Your task to perform on an android device: Do I have any events today? Image 0: 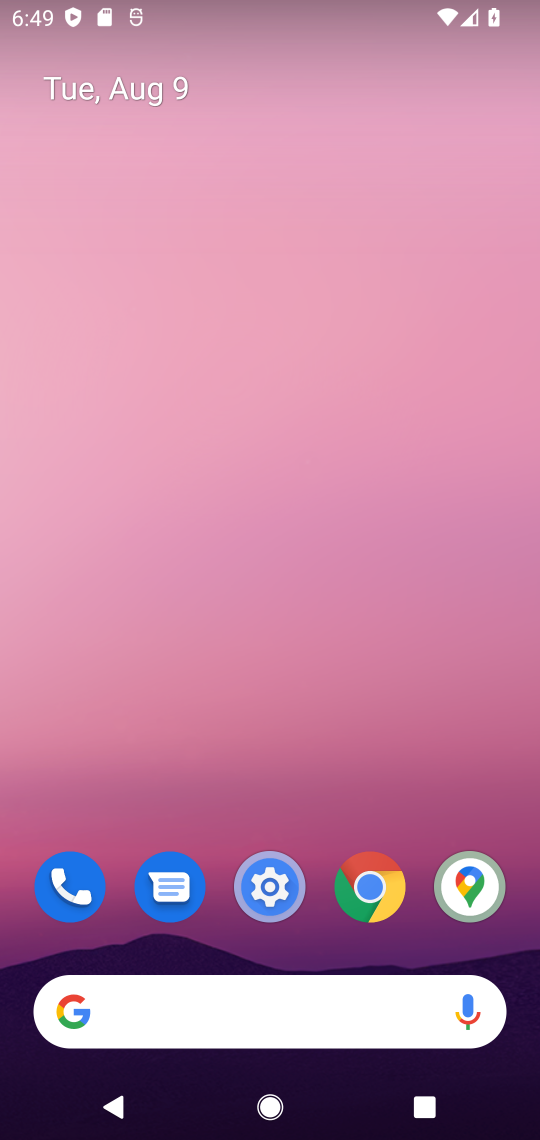
Step 0: drag from (271, 786) to (289, 3)
Your task to perform on an android device: Do I have any events today? Image 1: 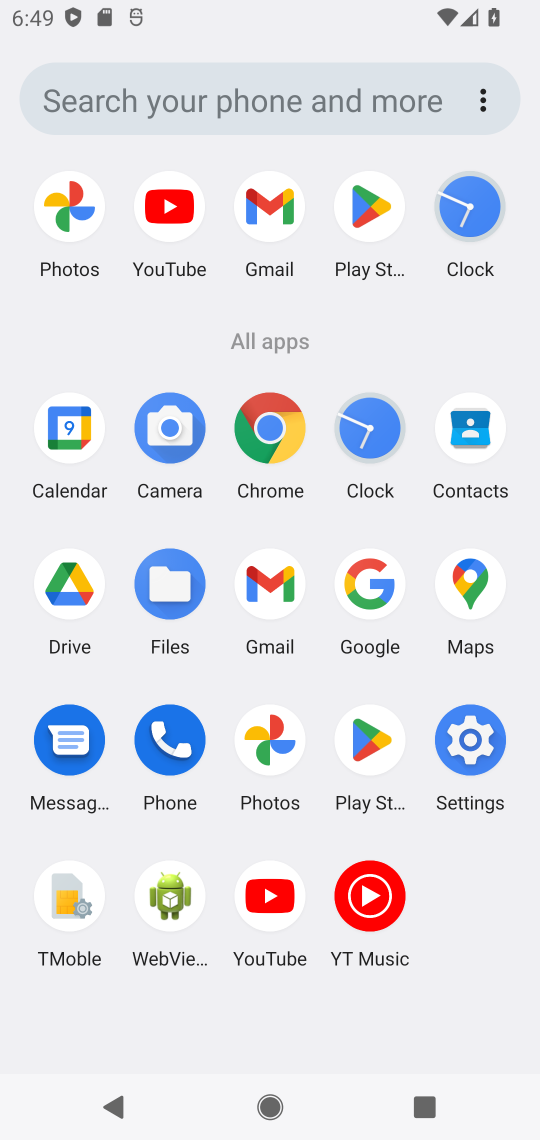
Step 1: click (68, 434)
Your task to perform on an android device: Do I have any events today? Image 2: 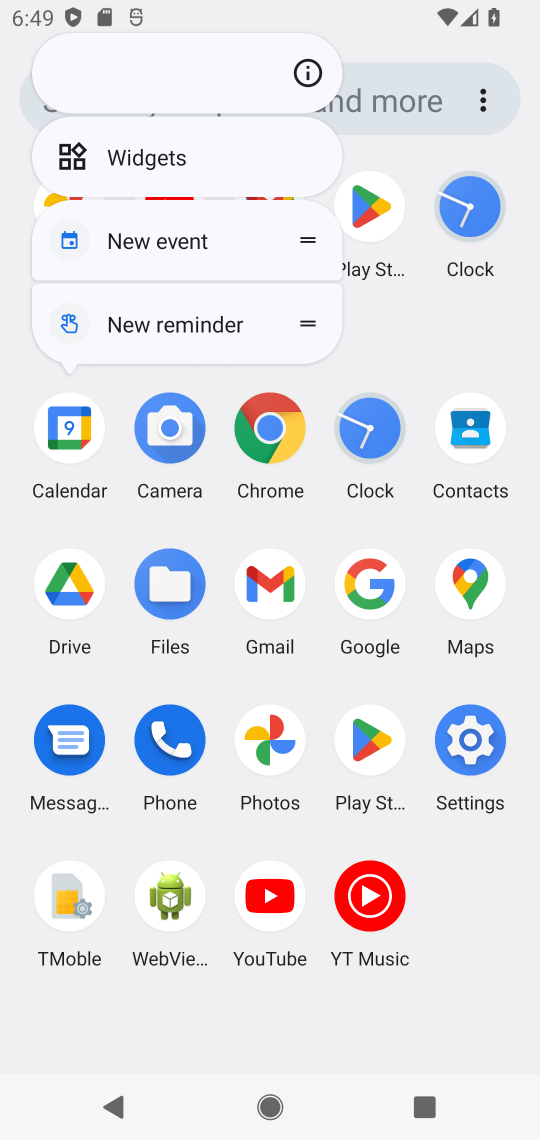
Step 2: click (70, 417)
Your task to perform on an android device: Do I have any events today? Image 3: 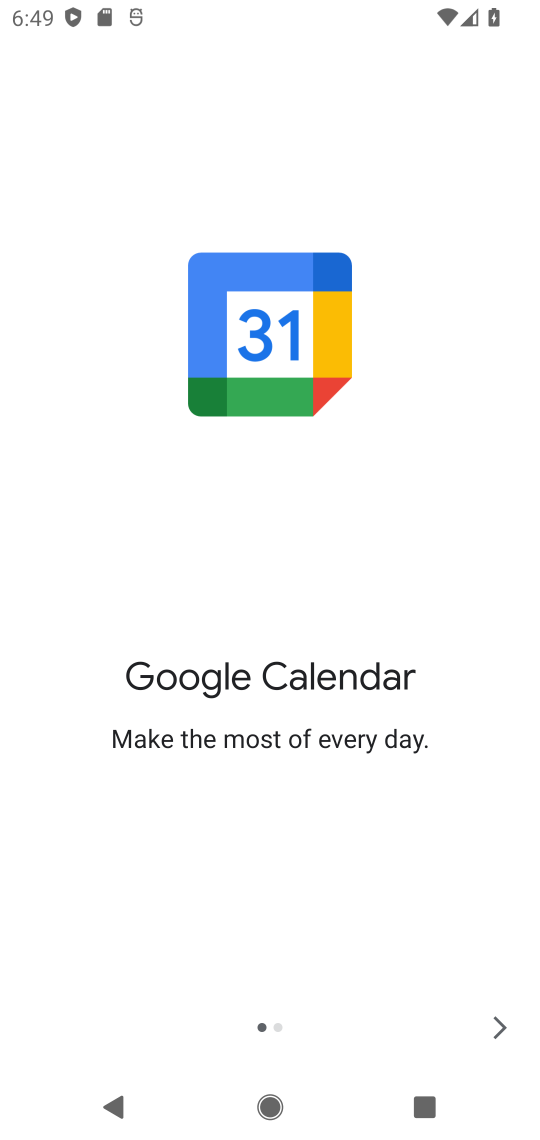
Step 3: click (499, 1022)
Your task to perform on an android device: Do I have any events today? Image 4: 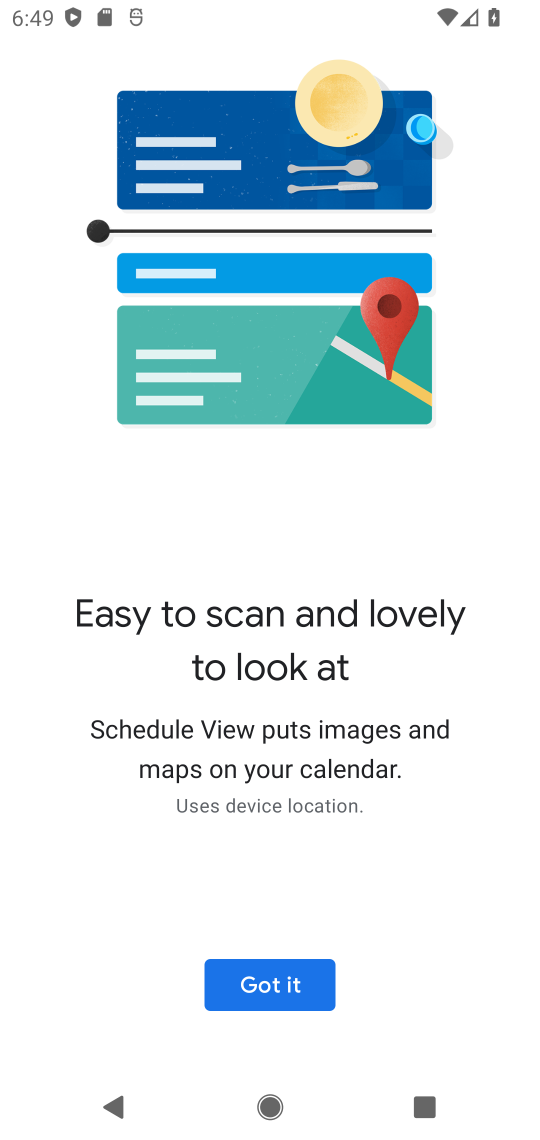
Step 4: click (319, 989)
Your task to perform on an android device: Do I have any events today? Image 5: 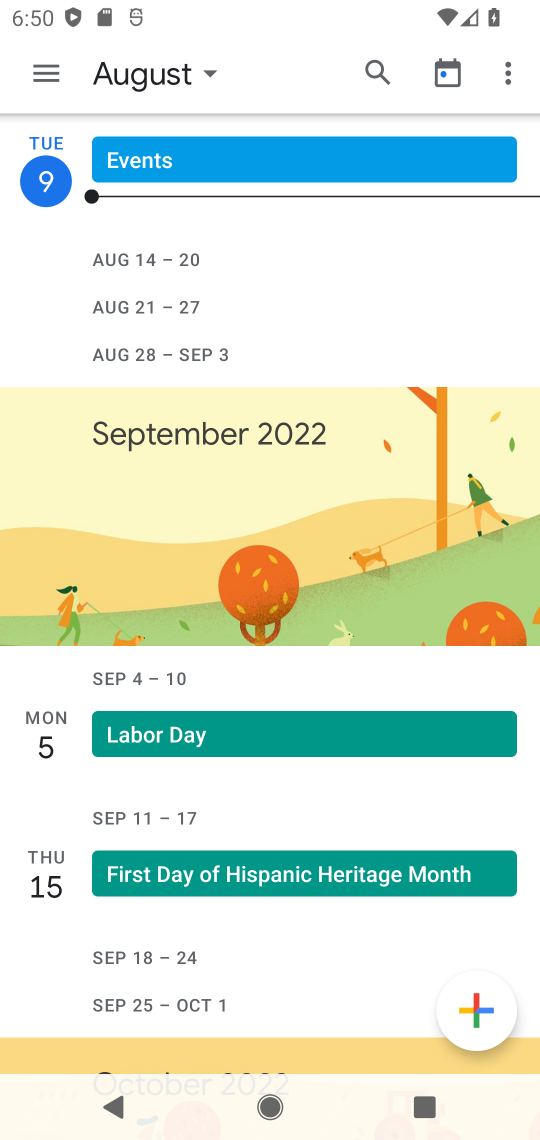
Step 5: click (51, 176)
Your task to perform on an android device: Do I have any events today? Image 6: 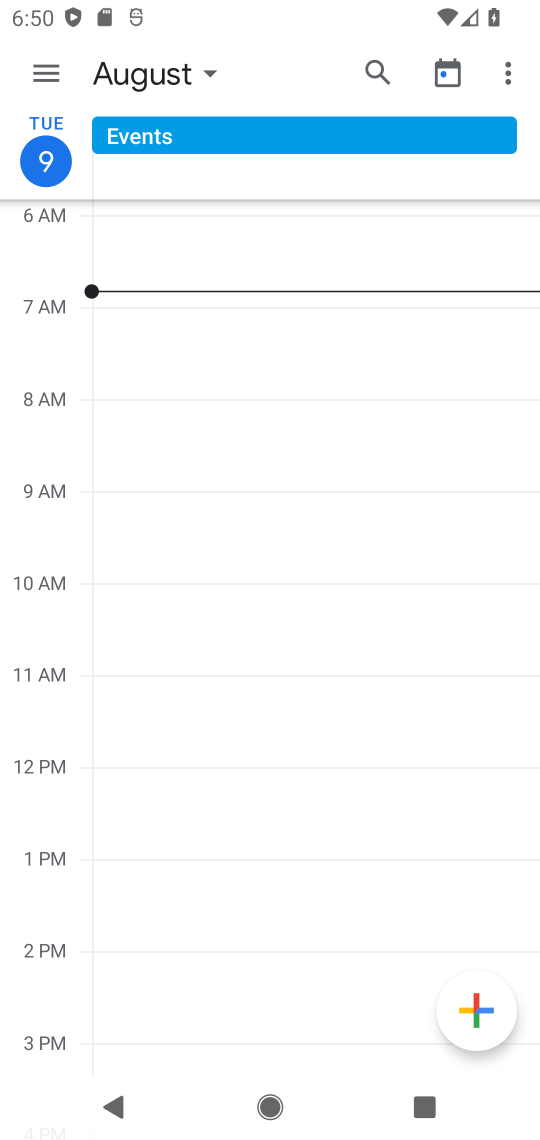
Step 6: task complete